Your task to perform on an android device: add a contact Image 0: 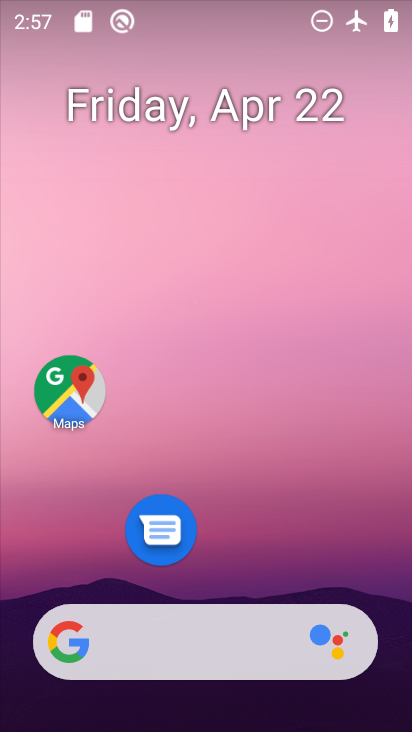
Step 0: drag from (240, 565) to (218, 5)
Your task to perform on an android device: add a contact Image 1: 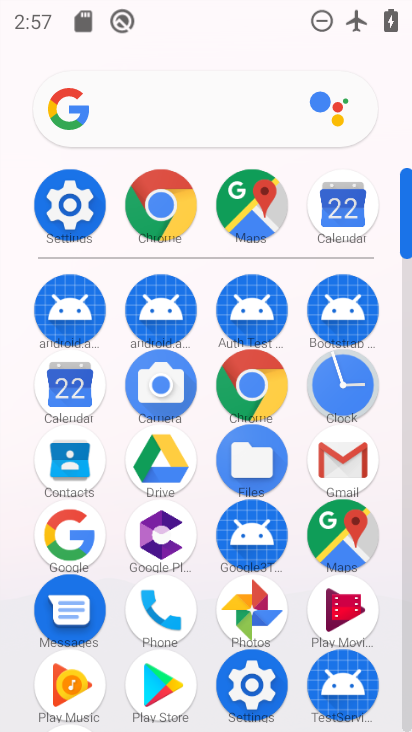
Step 1: click (74, 461)
Your task to perform on an android device: add a contact Image 2: 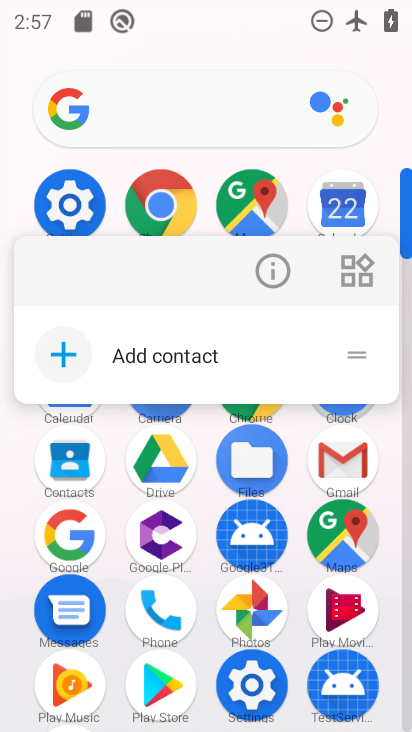
Step 2: click (74, 461)
Your task to perform on an android device: add a contact Image 3: 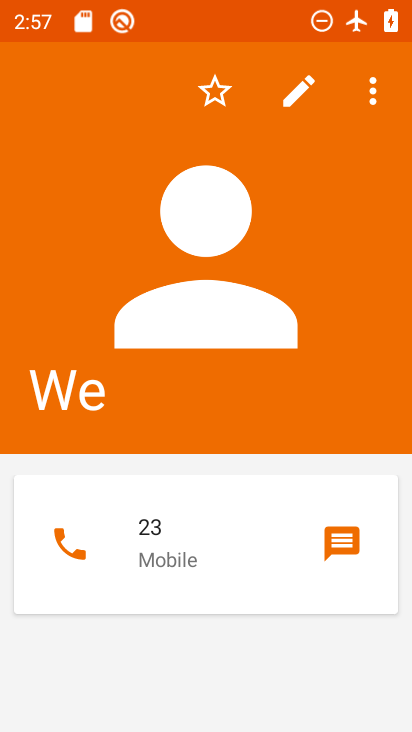
Step 3: press back button
Your task to perform on an android device: add a contact Image 4: 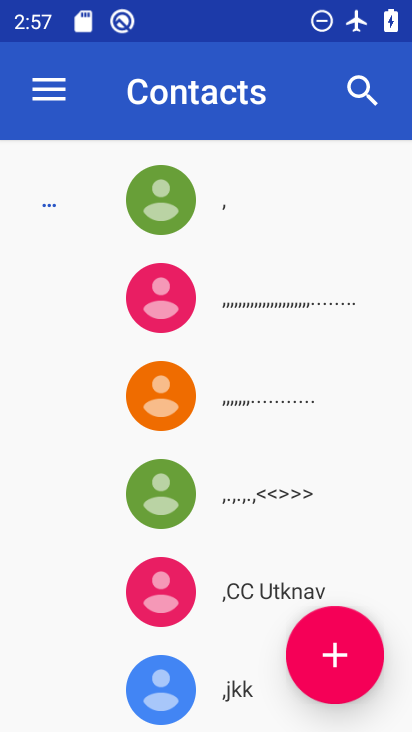
Step 4: click (333, 656)
Your task to perform on an android device: add a contact Image 5: 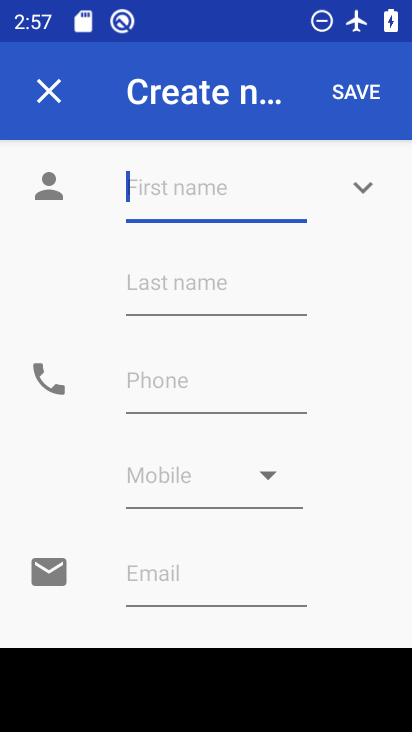
Step 5: type "gy"
Your task to perform on an android device: add a contact Image 6: 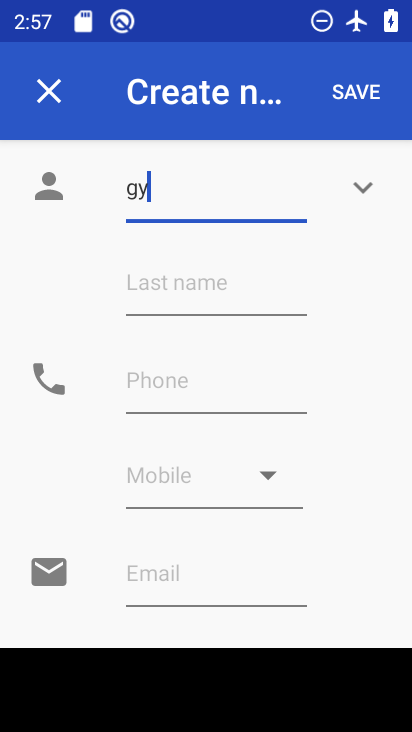
Step 6: type ""
Your task to perform on an android device: add a contact Image 7: 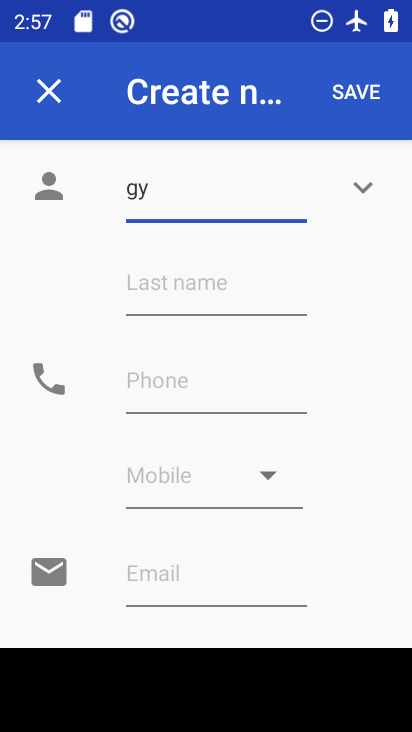
Step 7: click (152, 369)
Your task to perform on an android device: add a contact Image 8: 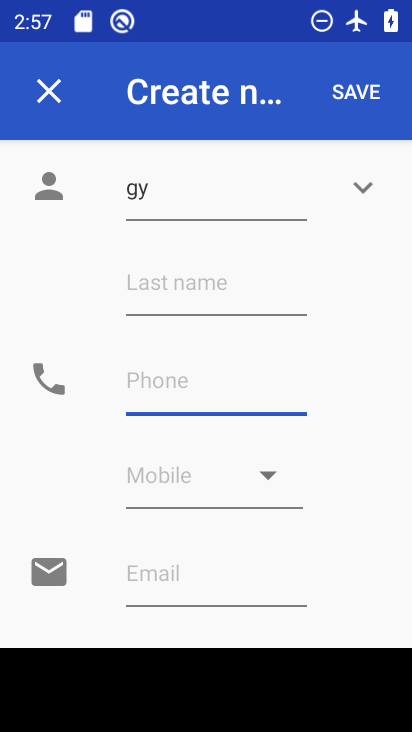
Step 8: type "053"
Your task to perform on an android device: add a contact Image 9: 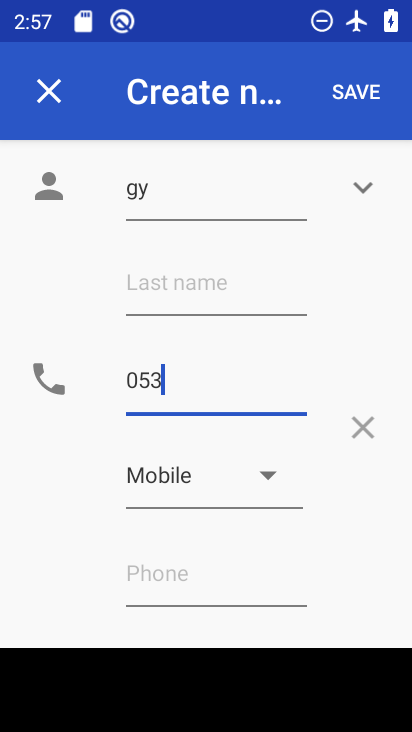
Step 9: click (356, 85)
Your task to perform on an android device: add a contact Image 10: 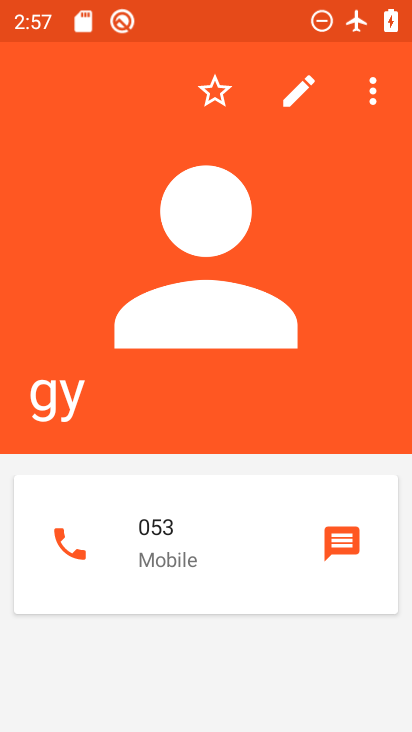
Step 10: task complete